Your task to perform on an android device: Open maps Image 0: 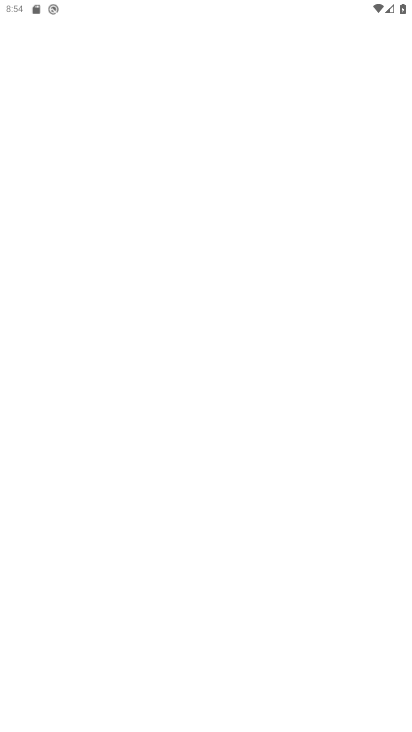
Step 0: press home button
Your task to perform on an android device: Open maps Image 1: 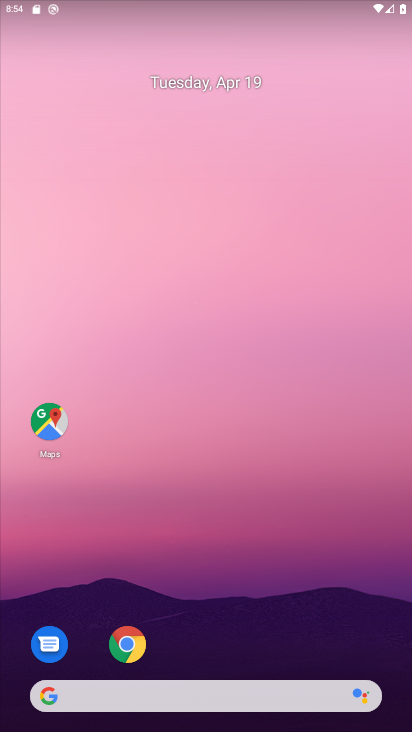
Step 1: drag from (251, 619) to (235, 32)
Your task to perform on an android device: Open maps Image 2: 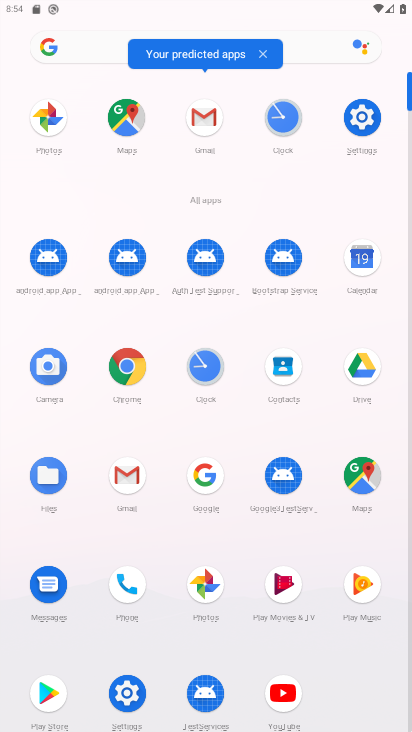
Step 2: click (363, 477)
Your task to perform on an android device: Open maps Image 3: 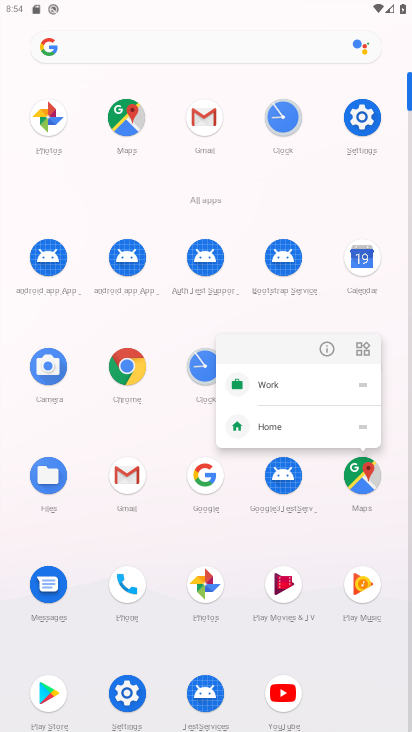
Step 3: click (364, 477)
Your task to perform on an android device: Open maps Image 4: 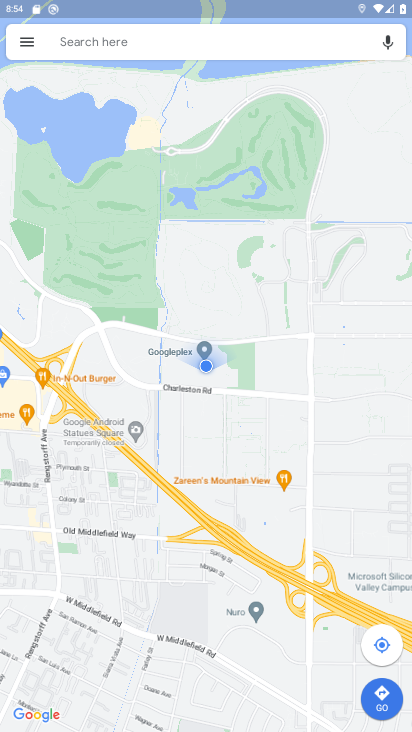
Step 4: task complete